Your task to perform on an android device: Is it going to rain tomorrow? Image 0: 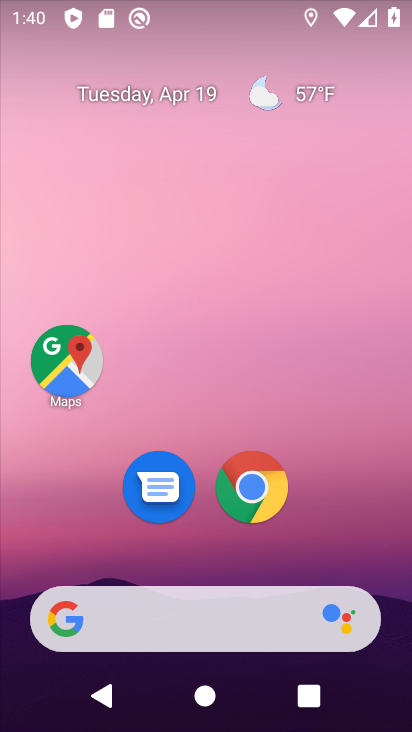
Step 0: drag from (359, 532) to (362, 111)
Your task to perform on an android device: Is it going to rain tomorrow? Image 1: 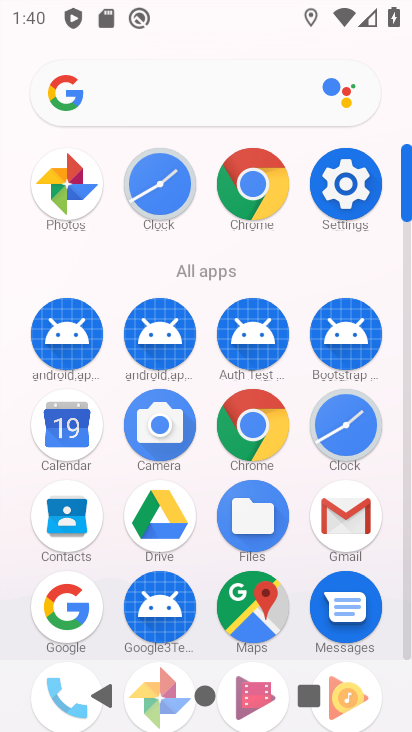
Step 1: click (260, 208)
Your task to perform on an android device: Is it going to rain tomorrow? Image 2: 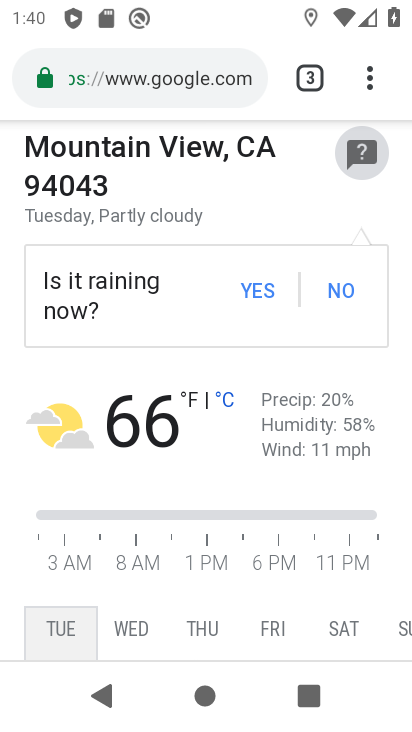
Step 2: click (204, 70)
Your task to perform on an android device: Is it going to rain tomorrow? Image 3: 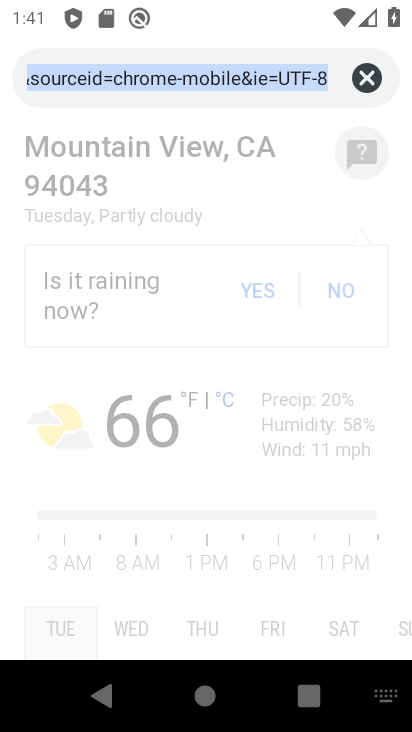
Step 3: click (367, 87)
Your task to perform on an android device: Is it going to rain tomorrow? Image 4: 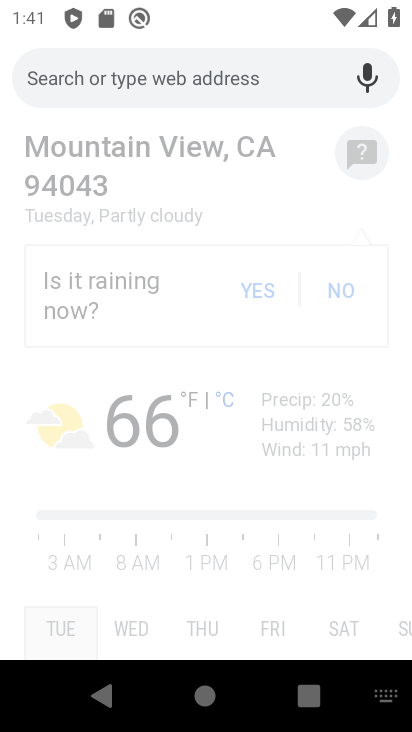
Step 4: click (270, 78)
Your task to perform on an android device: Is it going to rain tomorrow? Image 5: 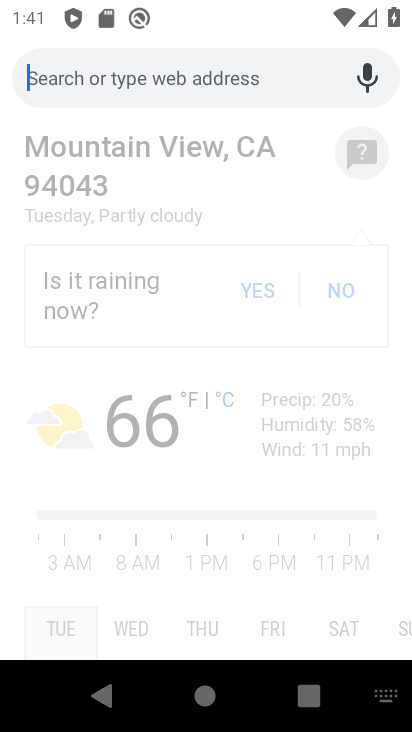
Step 5: type "is it going to rain tomorrow"
Your task to perform on an android device: Is it going to rain tomorrow? Image 6: 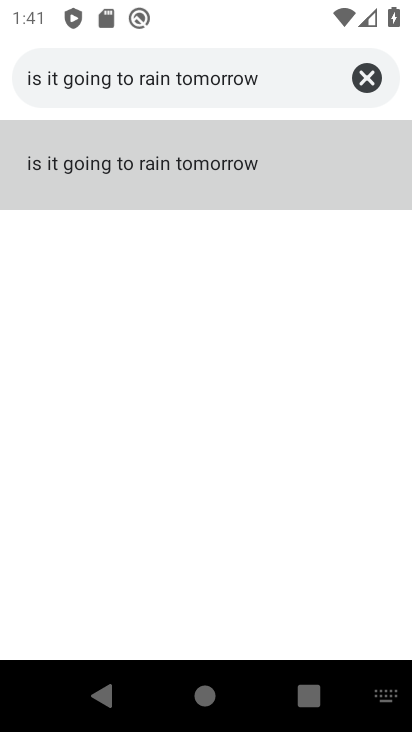
Step 6: click (111, 172)
Your task to perform on an android device: Is it going to rain tomorrow? Image 7: 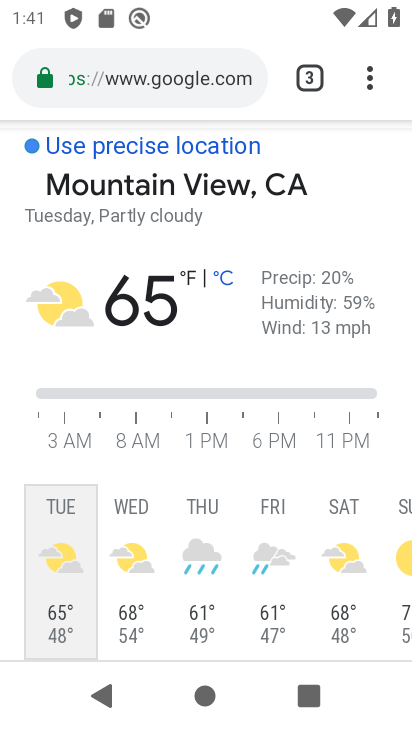
Step 7: task complete